Your task to perform on an android device: toggle translation in the chrome app Image 0: 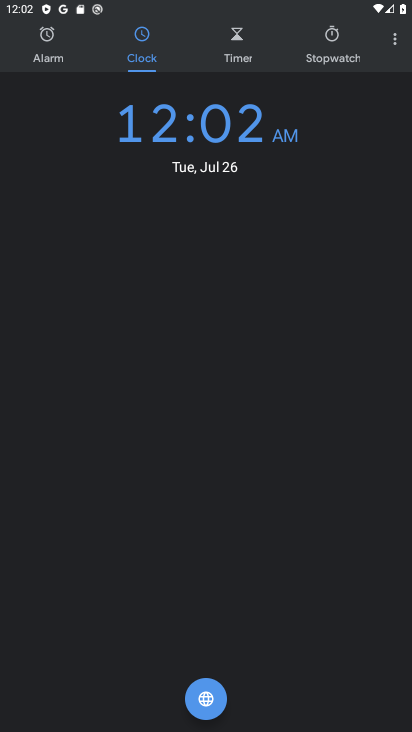
Step 0: press home button
Your task to perform on an android device: toggle translation in the chrome app Image 1: 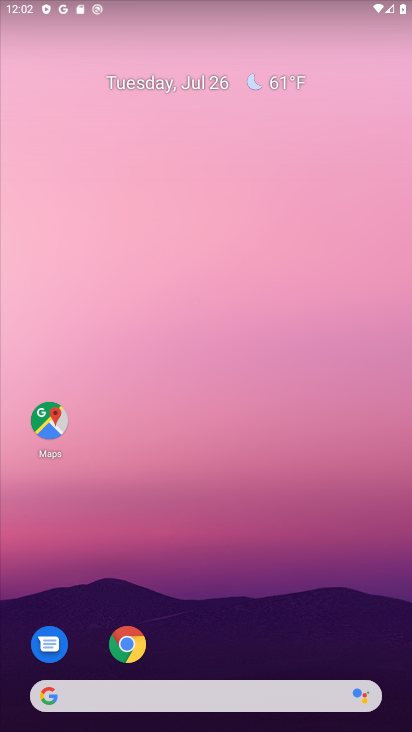
Step 1: click (132, 638)
Your task to perform on an android device: toggle translation in the chrome app Image 2: 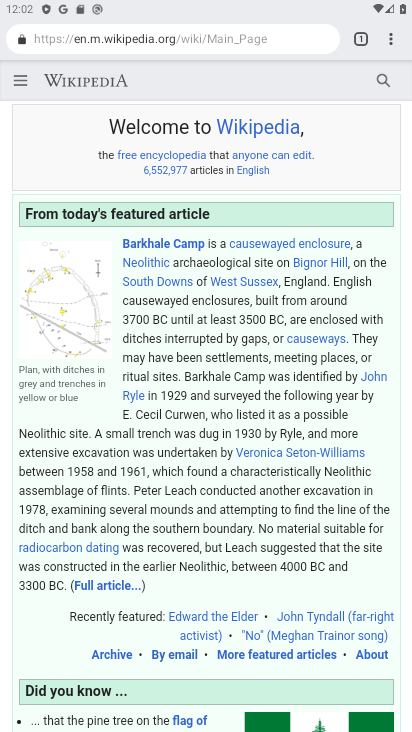
Step 2: click (392, 41)
Your task to perform on an android device: toggle translation in the chrome app Image 3: 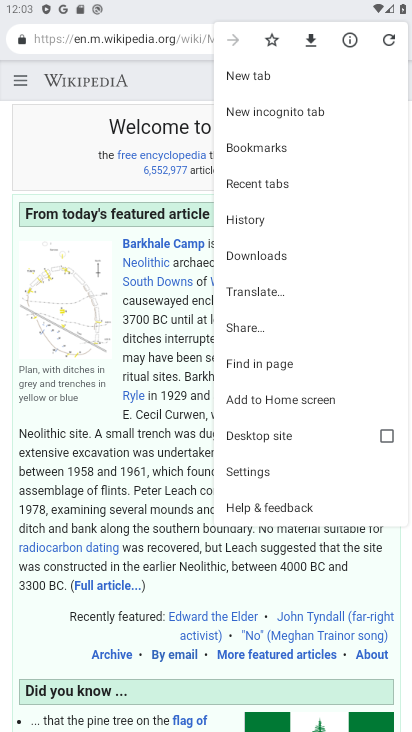
Step 3: click (264, 483)
Your task to perform on an android device: toggle translation in the chrome app Image 4: 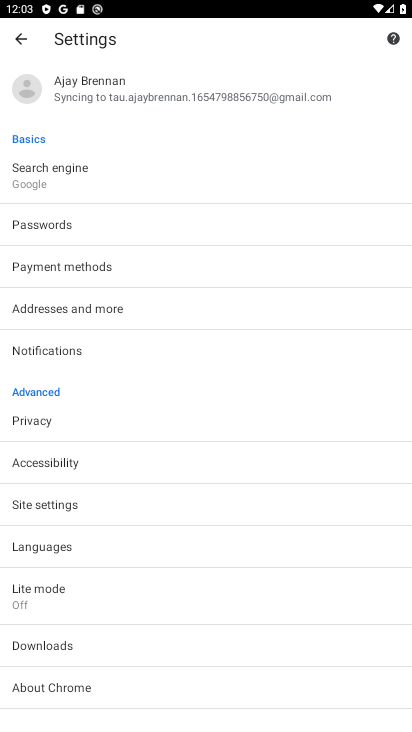
Step 4: click (101, 546)
Your task to perform on an android device: toggle translation in the chrome app Image 5: 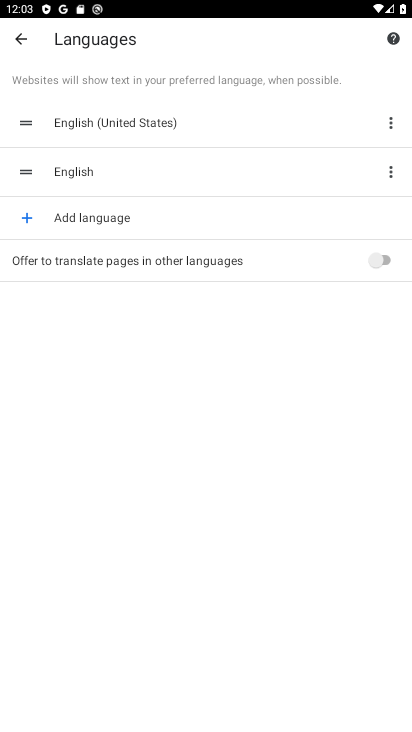
Step 5: click (385, 268)
Your task to perform on an android device: toggle translation in the chrome app Image 6: 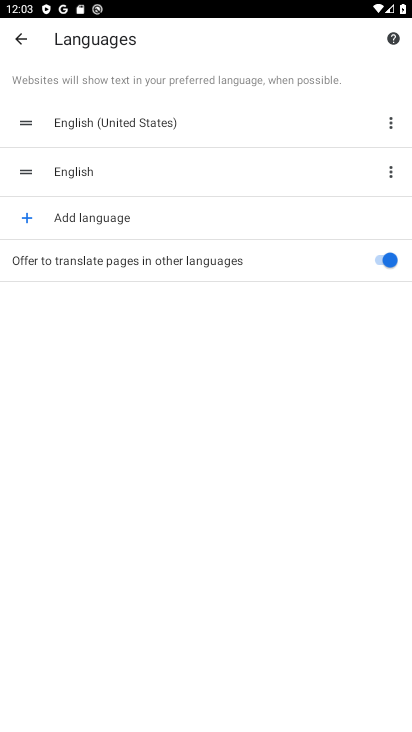
Step 6: task complete